Your task to perform on an android device: empty trash in the gmail app Image 0: 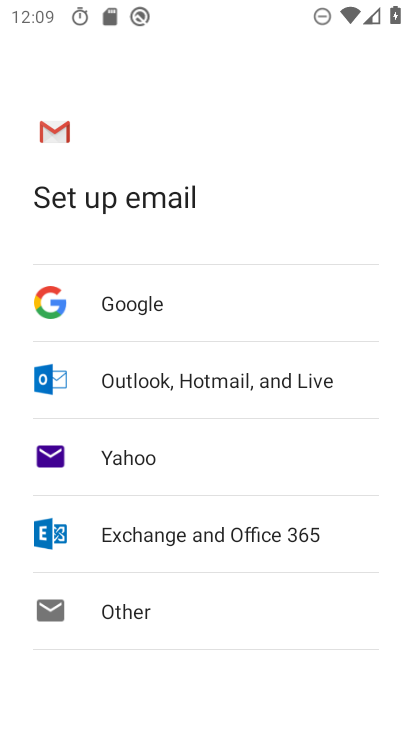
Step 0: press back button
Your task to perform on an android device: empty trash in the gmail app Image 1: 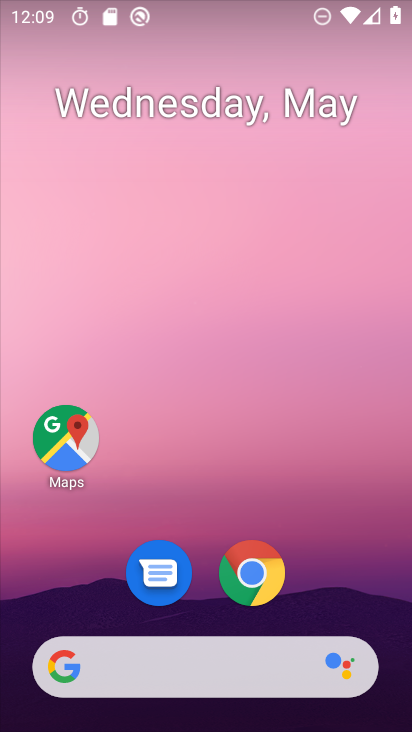
Step 1: drag from (344, 551) to (265, 49)
Your task to perform on an android device: empty trash in the gmail app Image 2: 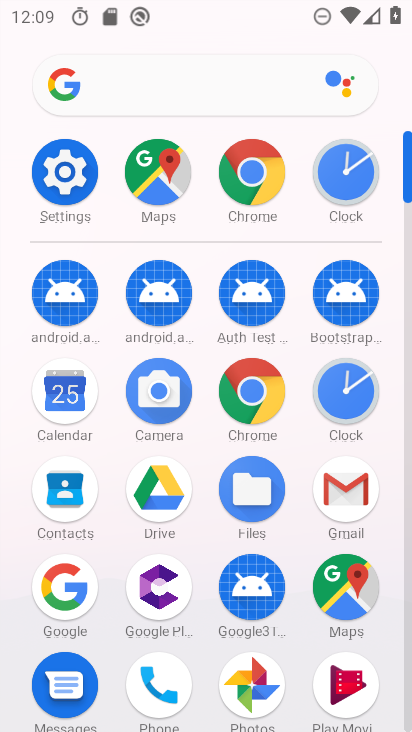
Step 2: drag from (12, 597) to (25, 334)
Your task to perform on an android device: empty trash in the gmail app Image 3: 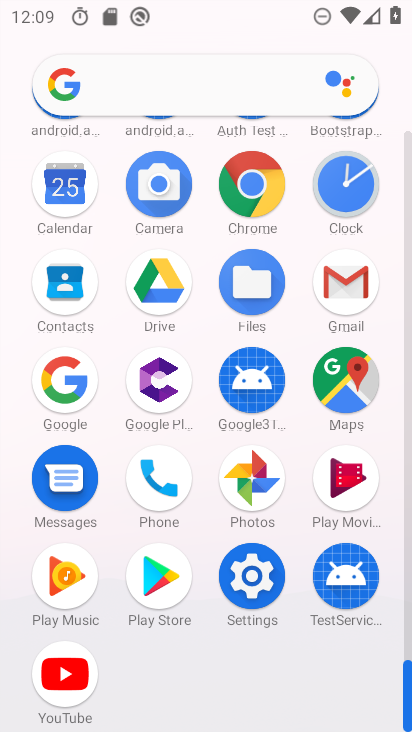
Step 3: click (350, 274)
Your task to perform on an android device: empty trash in the gmail app Image 4: 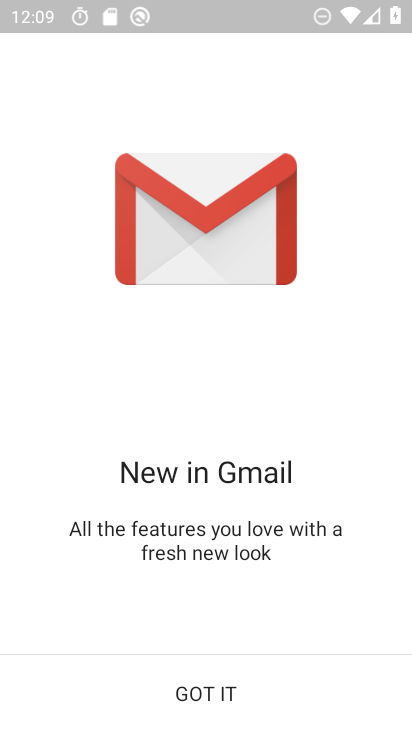
Step 4: click (213, 684)
Your task to perform on an android device: empty trash in the gmail app Image 5: 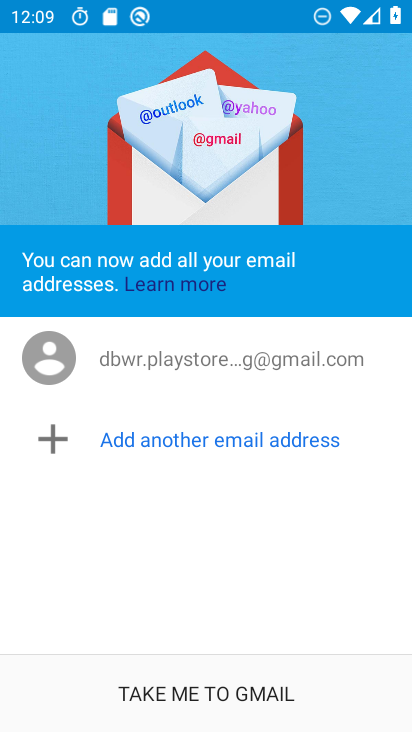
Step 5: click (227, 678)
Your task to perform on an android device: empty trash in the gmail app Image 6: 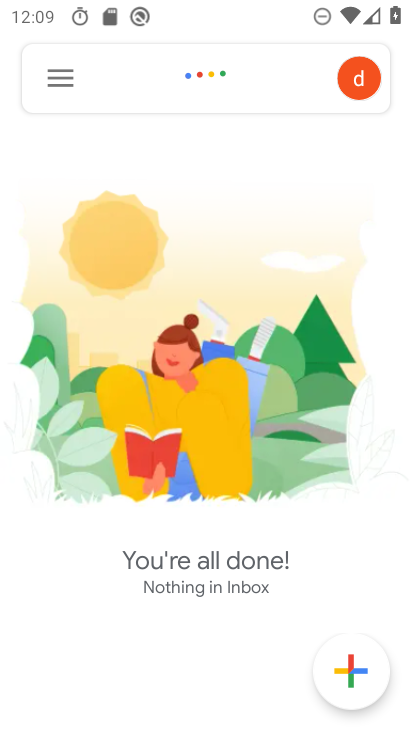
Step 6: click (78, 79)
Your task to perform on an android device: empty trash in the gmail app Image 7: 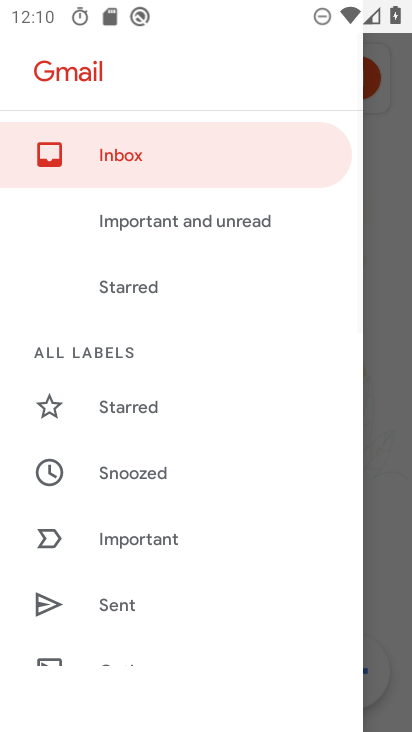
Step 7: drag from (181, 586) to (248, 207)
Your task to perform on an android device: empty trash in the gmail app Image 8: 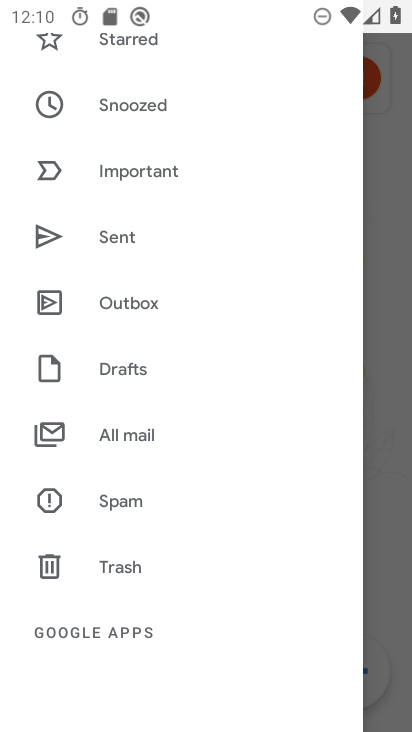
Step 8: click (141, 568)
Your task to perform on an android device: empty trash in the gmail app Image 9: 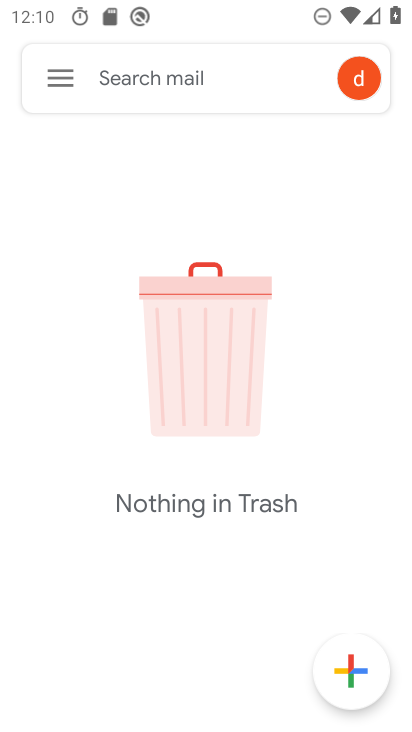
Step 9: task complete